Your task to perform on an android device: Go to calendar. Show me events next week Image 0: 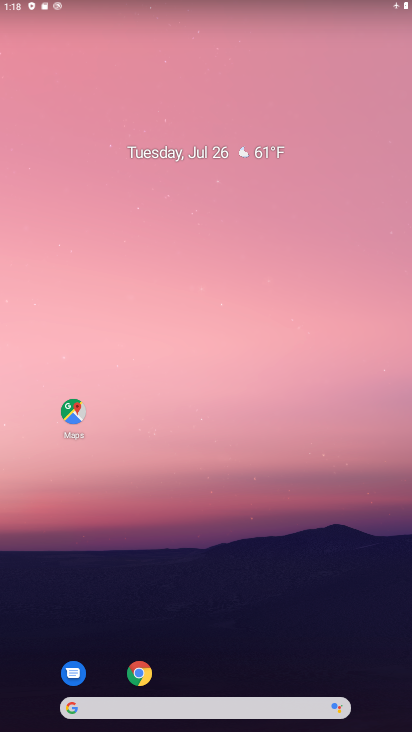
Step 0: drag from (195, 666) to (253, 59)
Your task to perform on an android device: Go to calendar. Show me events next week Image 1: 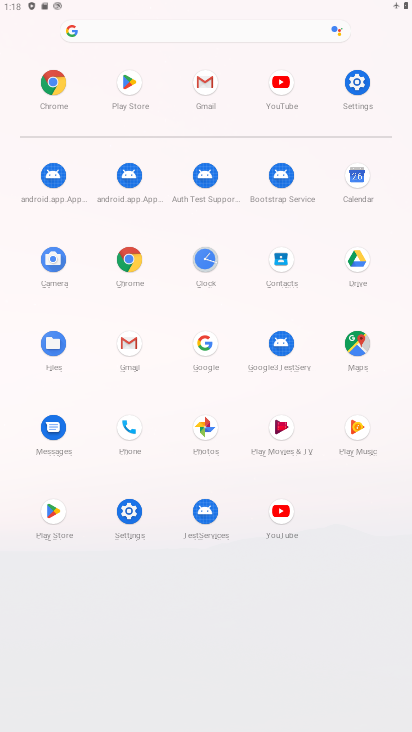
Step 1: click (357, 167)
Your task to perform on an android device: Go to calendar. Show me events next week Image 2: 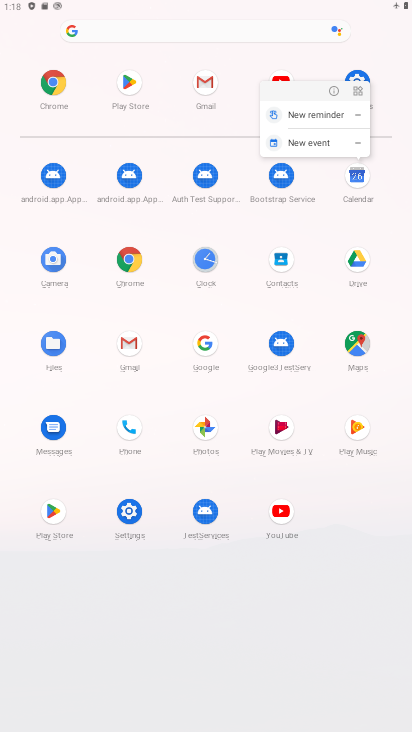
Step 2: click (326, 89)
Your task to perform on an android device: Go to calendar. Show me events next week Image 3: 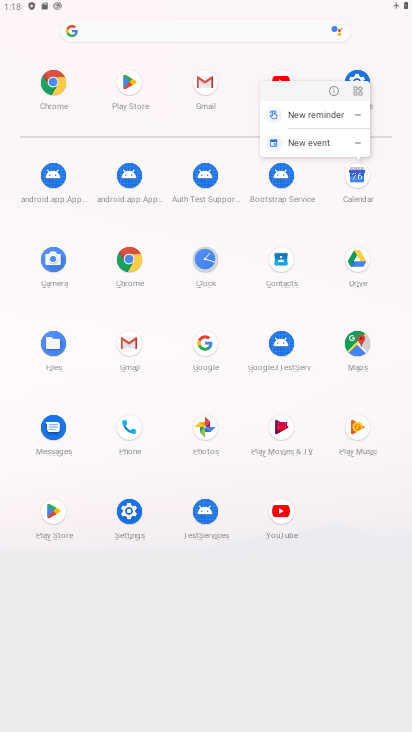
Step 3: click (326, 89)
Your task to perform on an android device: Go to calendar. Show me events next week Image 4: 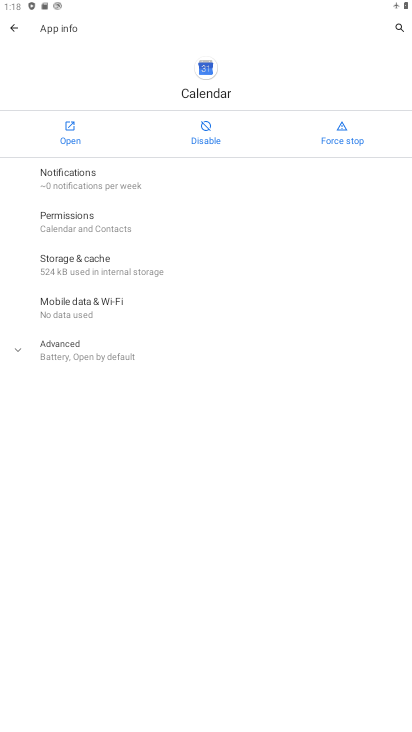
Step 4: click (73, 138)
Your task to perform on an android device: Go to calendar. Show me events next week Image 5: 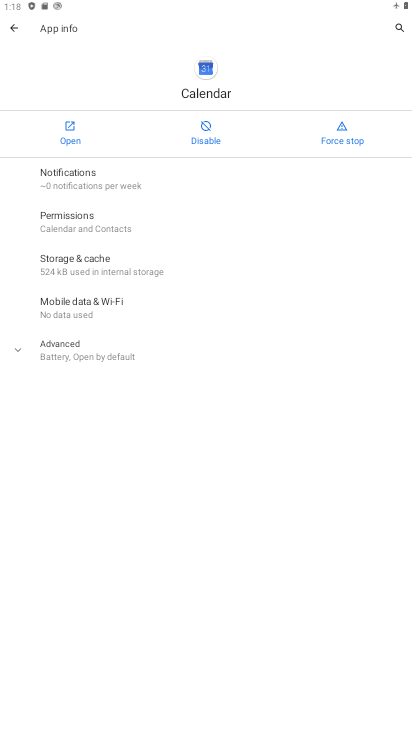
Step 5: click (73, 138)
Your task to perform on an android device: Go to calendar. Show me events next week Image 6: 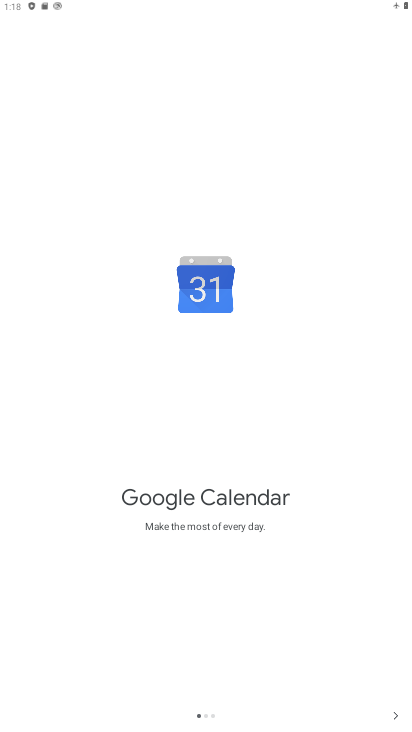
Step 6: click (391, 726)
Your task to perform on an android device: Go to calendar. Show me events next week Image 7: 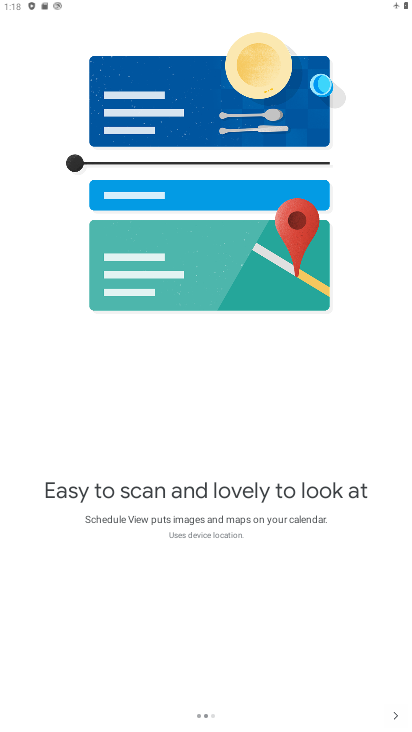
Step 7: click (386, 717)
Your task to perform on an android device: Go to calendar. Show me events next week Image 8: 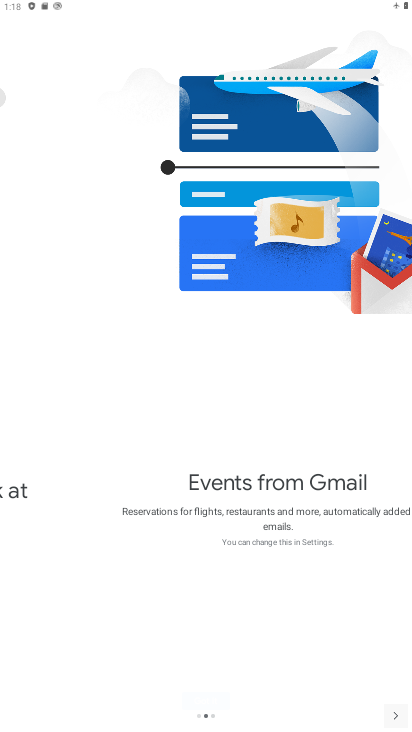
Step 8: click (384, 716)
Your task to perform on an android device: Go to calendar. Show me events next week Image 9: 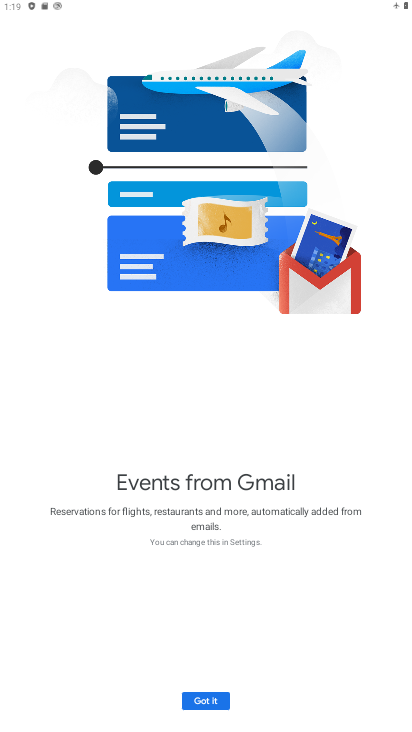
Step 9: click (384, 716)
Your task to perform on an android device: Go to calendar. Show me events next week Image 10: 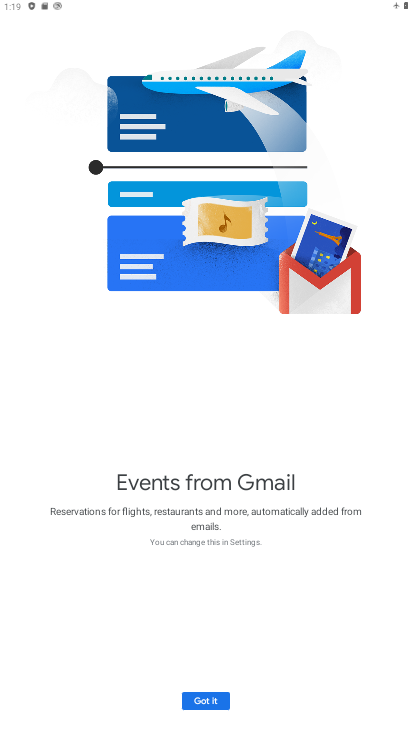
Step 10: click (384, 716)
Your task to perform on an android device: Go to calendar. Show me events next week Image 11: 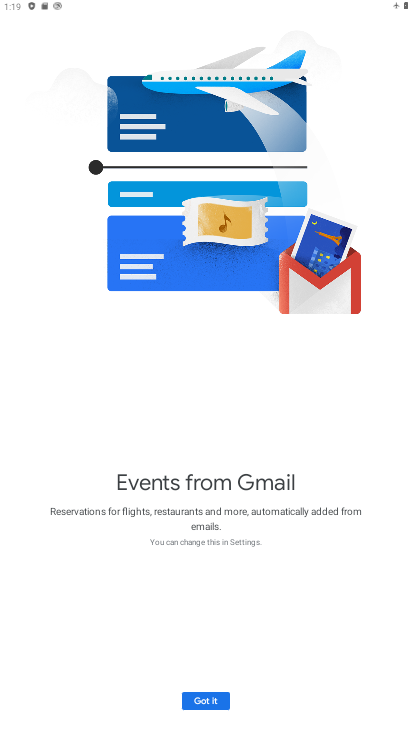
Step 11: click (195, 694)
Your task to perform on an android device: Go to calendar. Show me events next week Image 12: 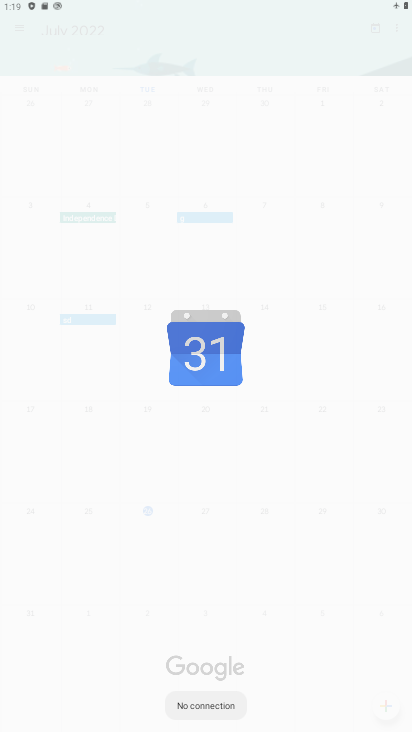
Step 12: drag from (269, 501) to (311, 254)
Your task to perform on an android device: Go to calendar. Show me events next week Image 13: 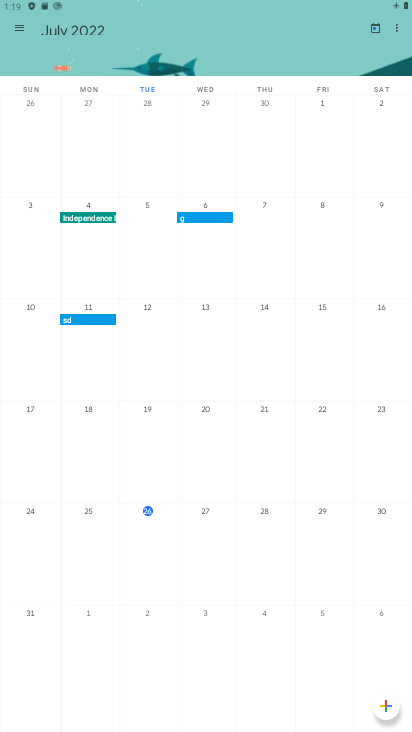
Step 13: click (369, 29)
Your task to perform on an android device: Go to calendar. Show me events next week Image 14: 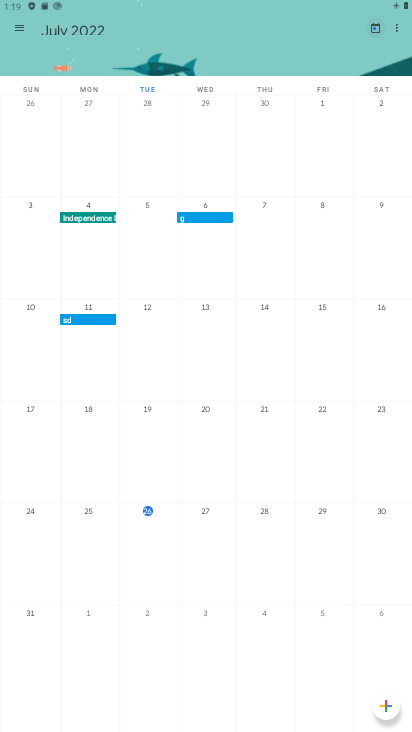
Step 14: click (369, 29)
Your task to perform on an android device: Go to calendar. Show me events next week Image 15: 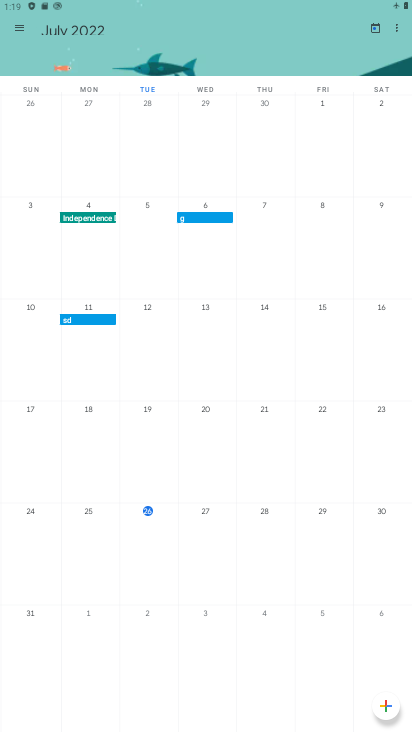
Step 15: click (379, 23)
Your task to perform on an android device: Go to calendar. Show me events next week Image 16: 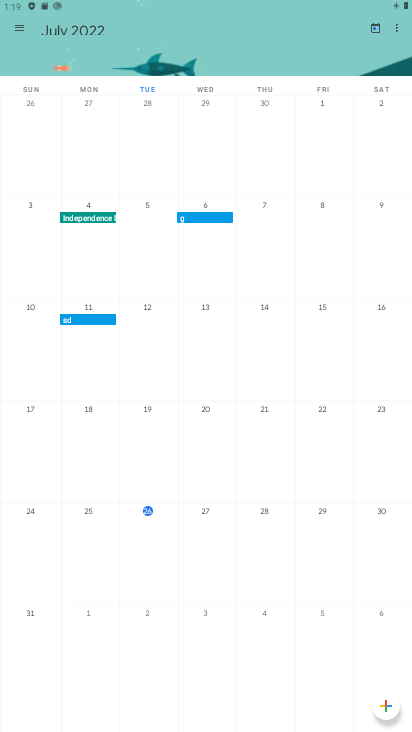
Step 16: drag from (59, 371) to (372, 321)
Your task to perform on an android device: Go to calendar. Show me events next week Image 17: 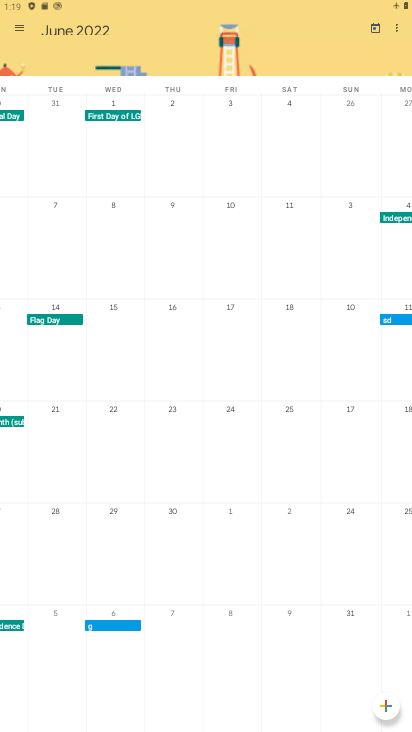
Step 17: drag from (256, 343) to (28, 543)
Your task to perform on an android device: Go to calendar. Show me events next week Image 18: 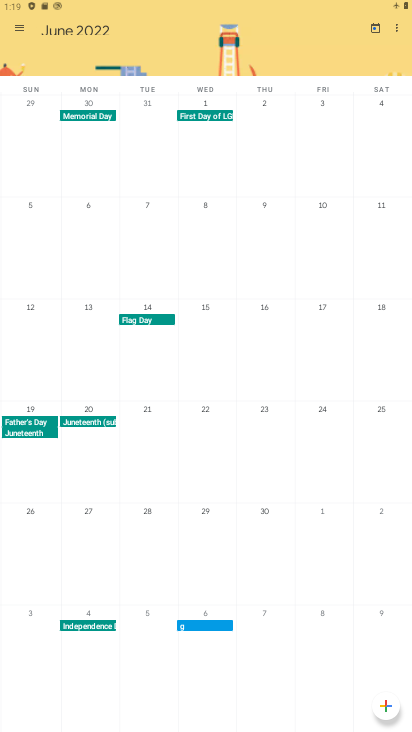
Step 18: drag from (330, 444) to (2, 448)
Your task to perform on an android device: Go to calendar. Show me events next week Image 19: 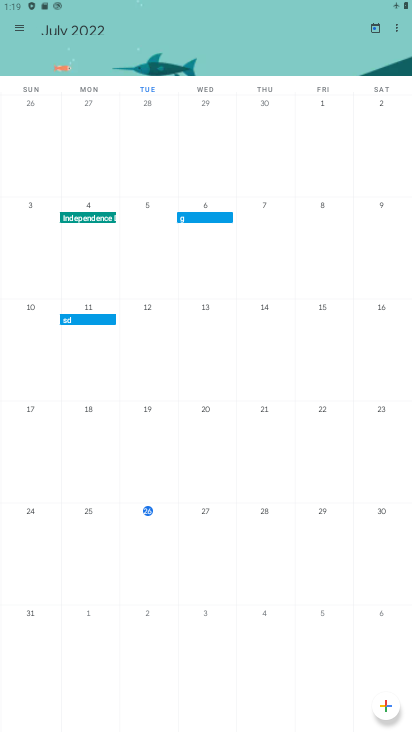
Step 19: click (35, 617)
Your task to perform on an android device: Go to calendar. Show me events next week Image 20: 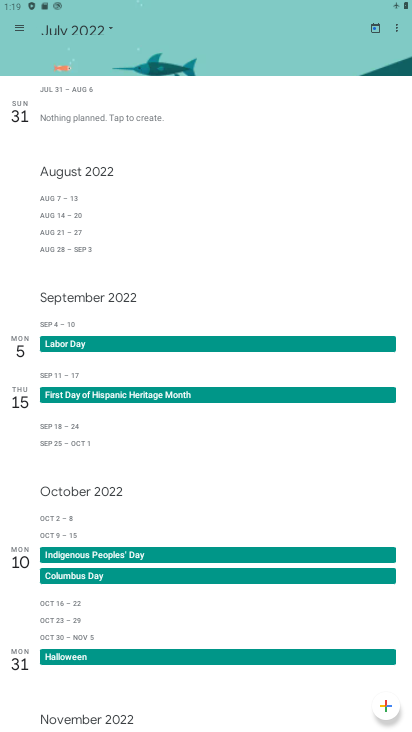
Step 20: task complete